Your task to perform on an android device: Turn off the flashlight Image 0: 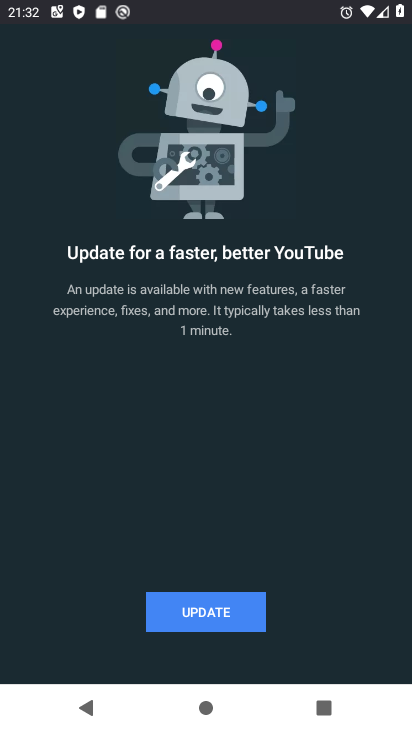
Step 0: press back button
Your task to perform on an android device: Turn off the flashlight Image 1: 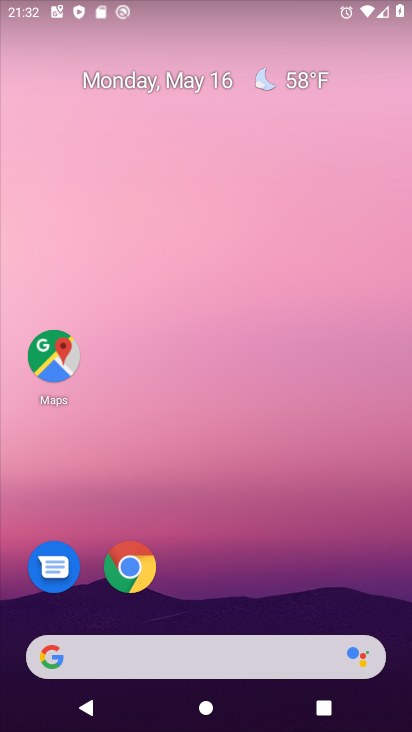
Step 1: drag from (228, 567) to (223, 238)
Your task to perform on an android device: Turn off the flashlight Image 2: 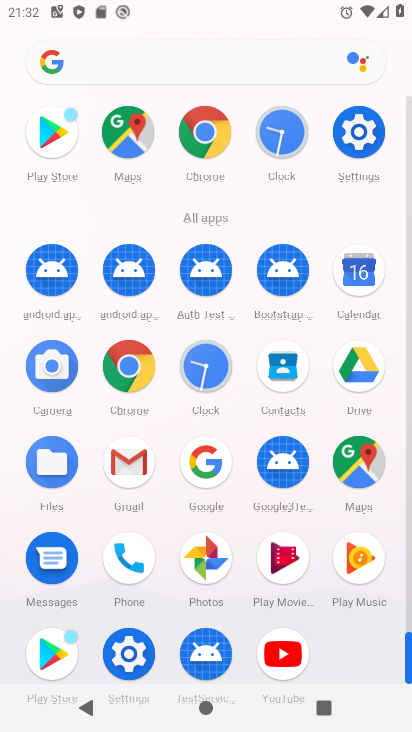
Step 2: click (354, 120)
Your task to perform on an android device: Turn off the flashlight Image 3: 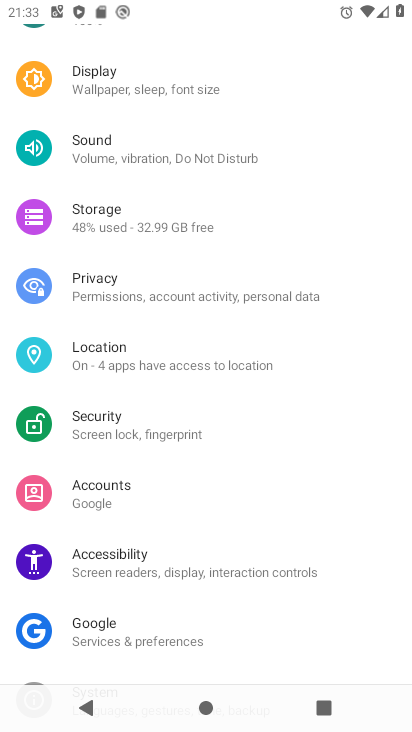
Step 3: task complete